Your task to perform on an android device: Open Android settings Image 0: 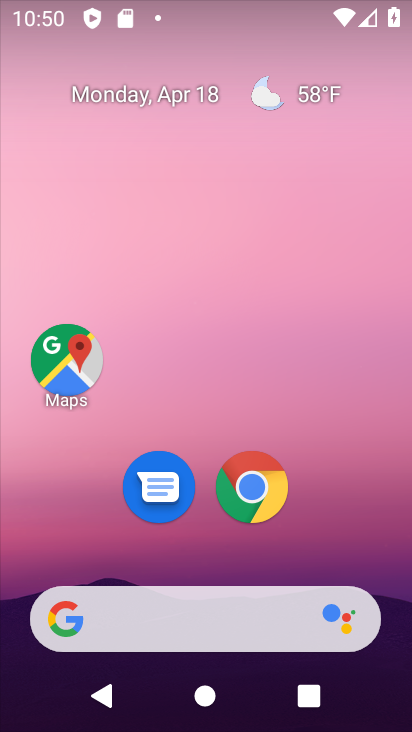
Step 0: drag from (324, 538) to (294, 182)
Your task to perform on an android device: Open Android settings Image 1: 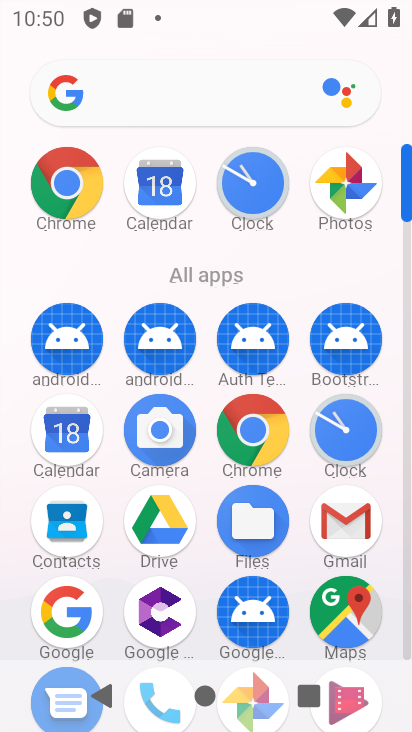
Step 1: drag from (281, 263) to (250, 65)
Your task to perform on an android device: Open Android settings Image 2: 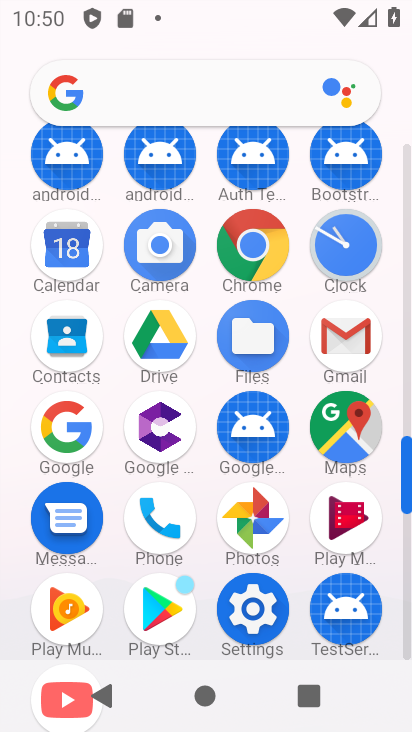
Step 2: click (273, 610)
Your task to perform on an android device: Open Android settings Image 3: 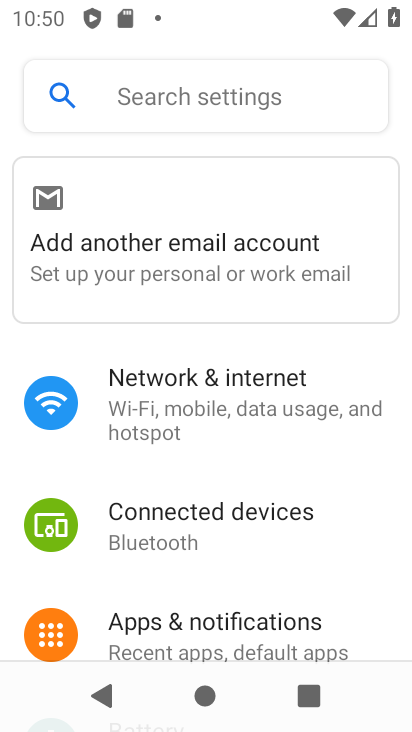
Step 3: task complete